Your task to perform on an android device: refresh tabs in the chrome app Image 0: 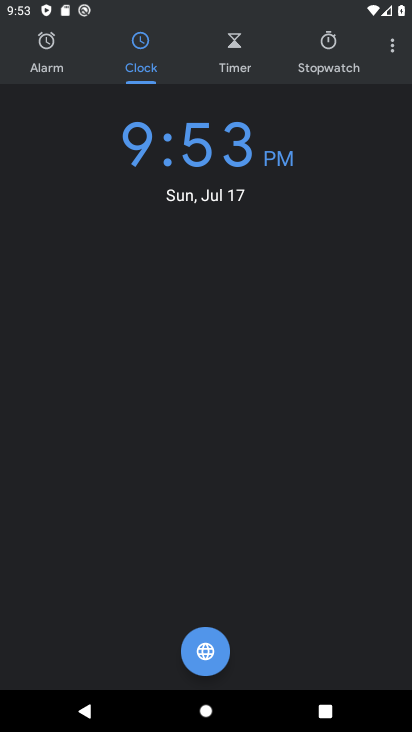
Step 0: press home button
Your task to perform on an android device: refresh tabs in the chrome app Image 1: 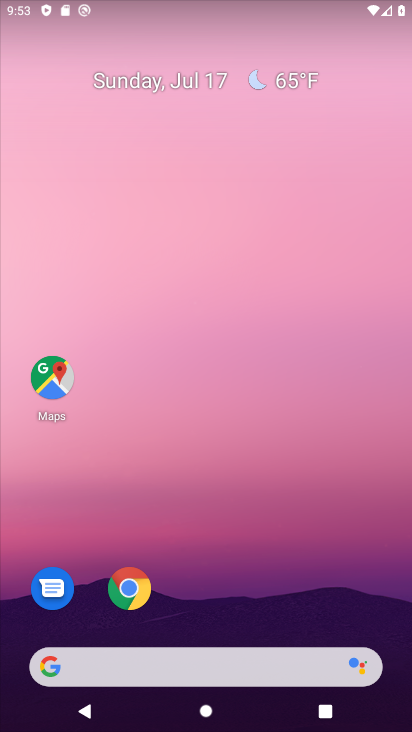
Step 1: click (131, 593)
Your task to perform on an android device: refresh tabs in the chrome app Image 2: 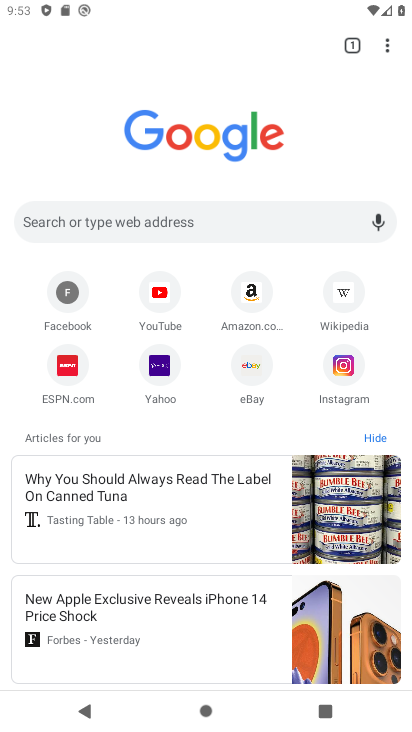
Step 2: click (388, 44)
Your task to perform on an android device: refresh tabs in the chrome app Image 3: 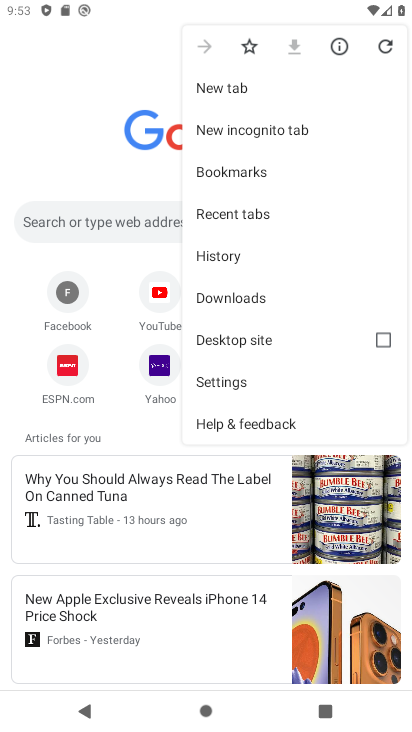
Step 3: click (383, 48)
Your task to perform on an android device: refresh tabs in the chrome app Image 4: 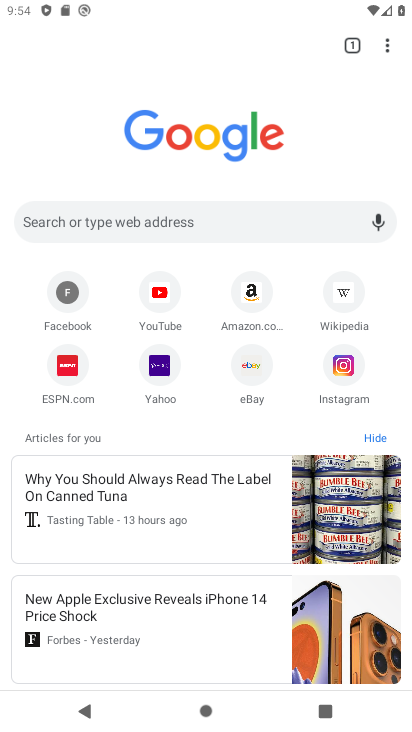
Step 4: task complete